Your task to perform on an android device: Open CNN.com Image 0: 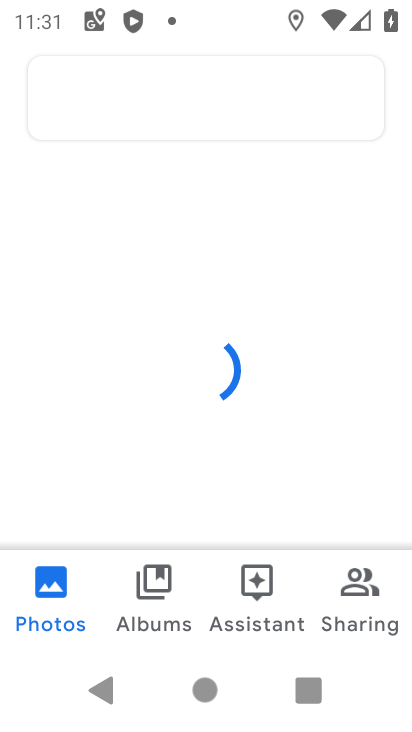
Step 0: press home button
Your task to perform on an android device: Open CNN.com Image 1: 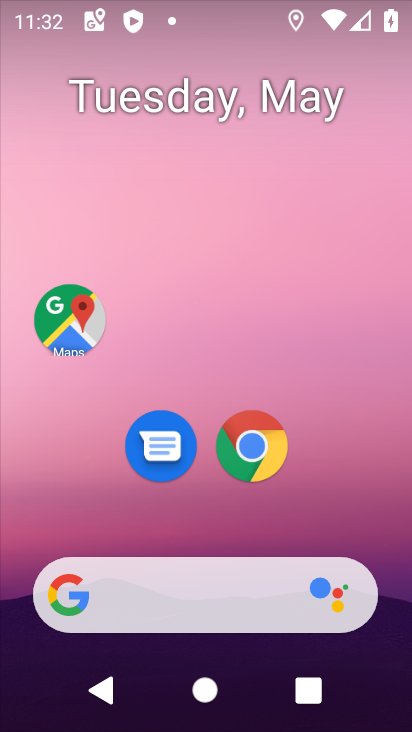
Step 1: click (257, 445)
Your task to perform on an android device: Open CNN.com Image 2: 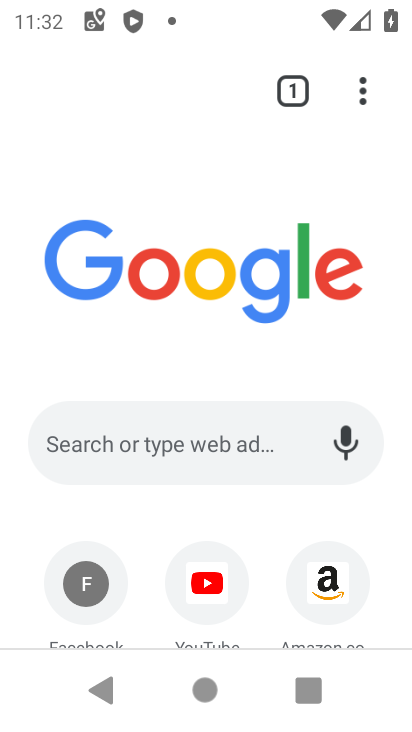
Step 2: click (274, 618)
Your task to perform on an android device: Open CNN.com Image 3: 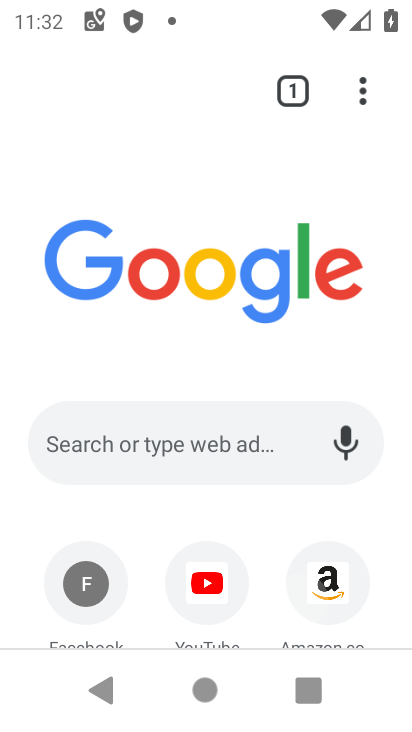
Step 3: drag from (278, 563) to (295, 317)
Your task to perform on an android device: Open CNN.com Image 4: 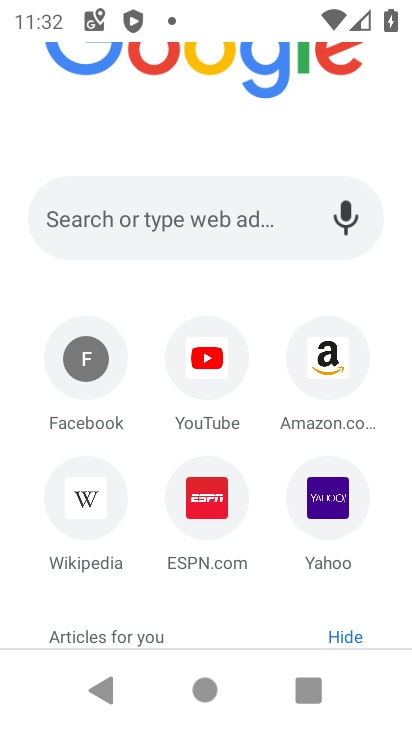
Step 4: click (178, 229)
Your task to perform on an android device: Open CNN.com Image 5: 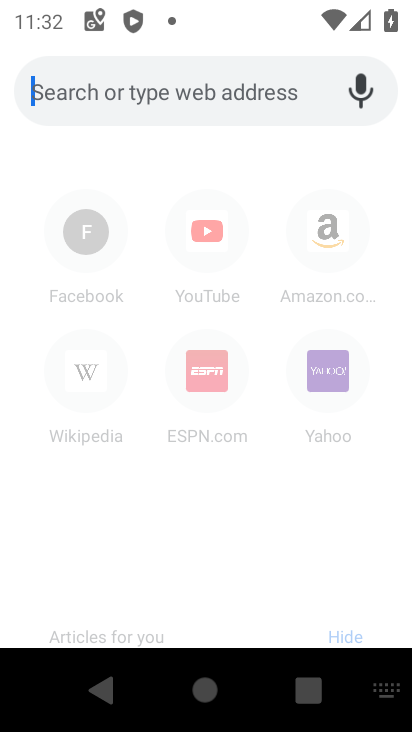
Step 5: type "CNN.com"
Your task to perform on an android device: Open CNN.com Image 6: 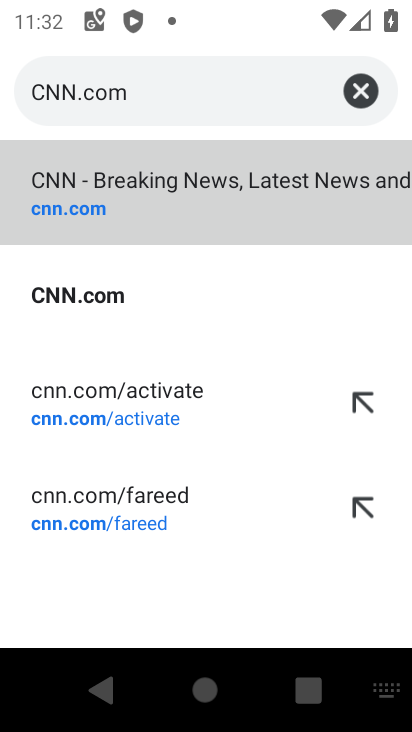
Step 6: click (95, 187)
Your task to perform on an android device: Open CNN.com Image 7: 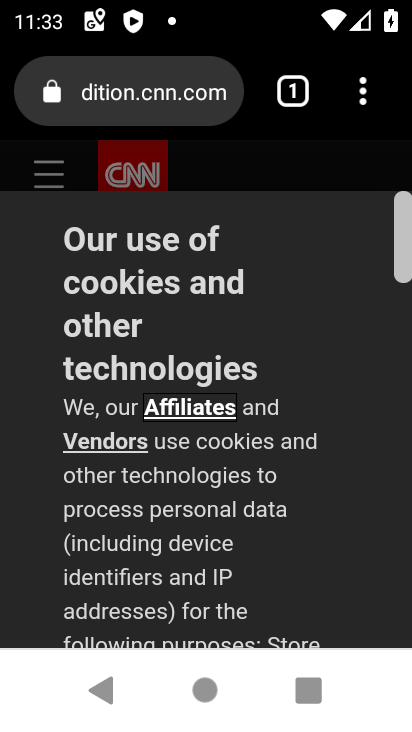
Step 7: task complete